Your task to perform on an android device: Go to calendar. Show me events next week Image 0: 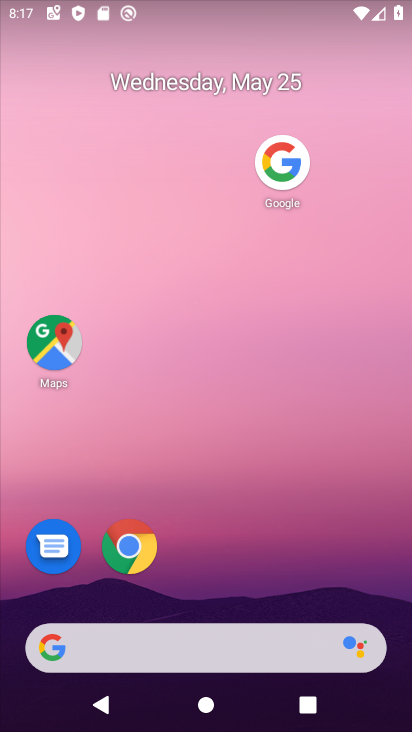
Step 0: press home button
Your task to perform on an android device: Go to calendar. Show me events next week Image 1: 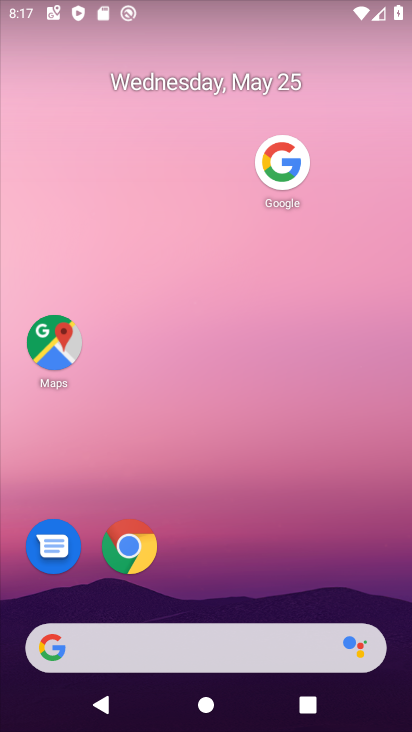
Step 1: drag from (208, 653) to (381, 203)
Your task to perform on an android device: Go to calendar. Show me events next week Image 2: 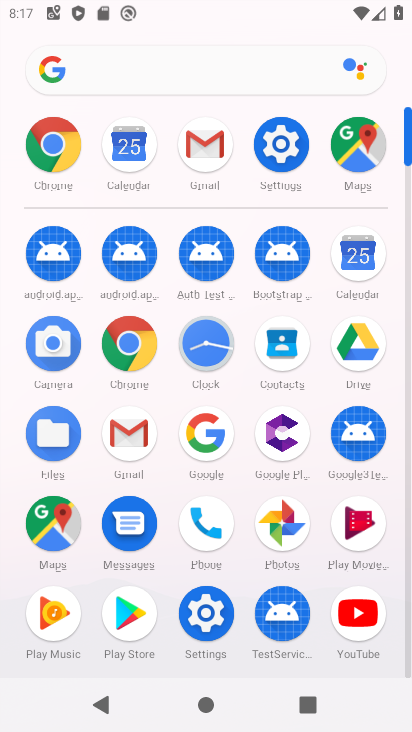
Step 2: click (362, 261)
Your task to perform on an android device: Go to calendar. Show me events next week Image 3: 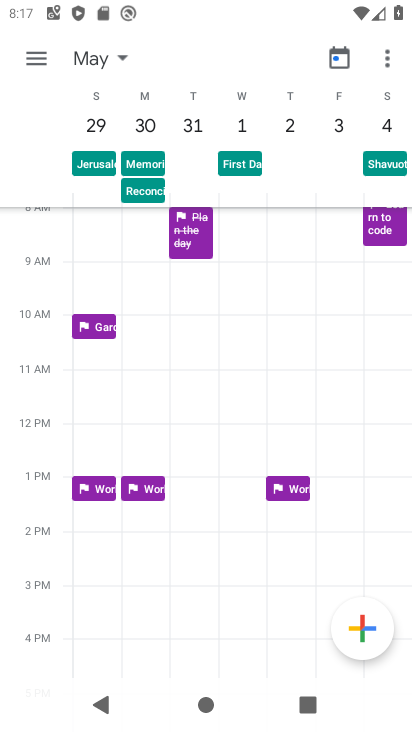
Step 3: click (38, 54)
Your task to perform on an android device: Go to calendar. Show me events next week Image 4: 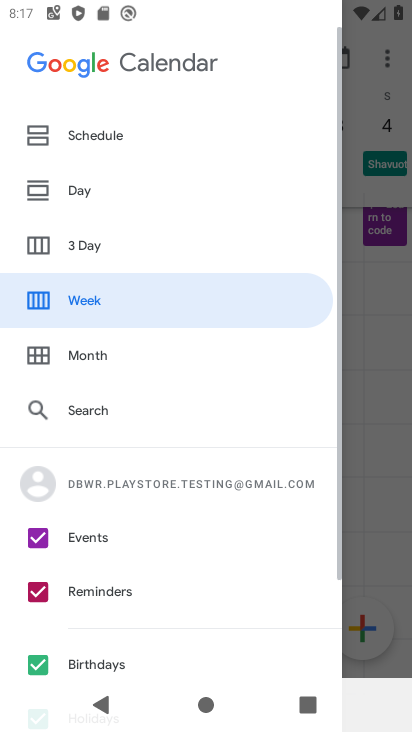
Step 4: click (107, 137)
Your task to perform on an android device: Go to calendar. Show me events next week Image 5: 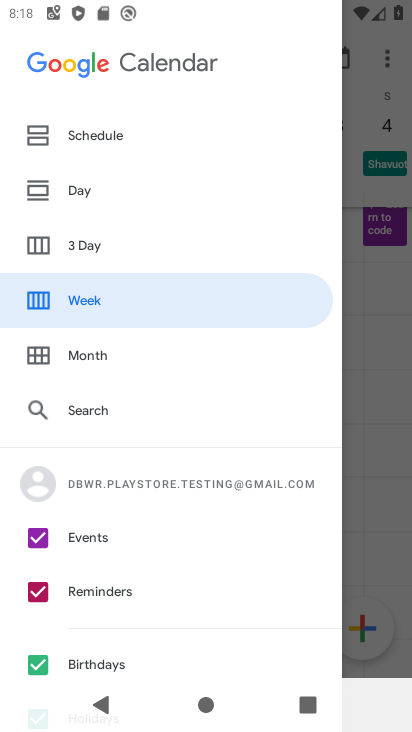
Step 5: click (83, 131)
Your task to perform on an android device: Go to calendar. Show me events next week Image 6: 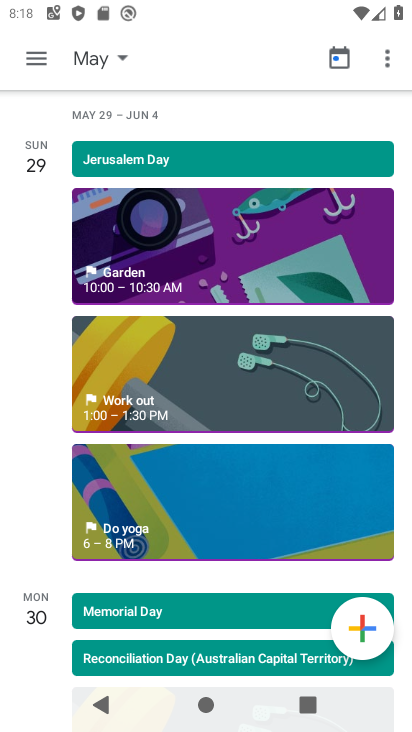
Step 6: click (255, 252)
Your task to perform on an android device: Go to calendar. Show me events next week Image 7: 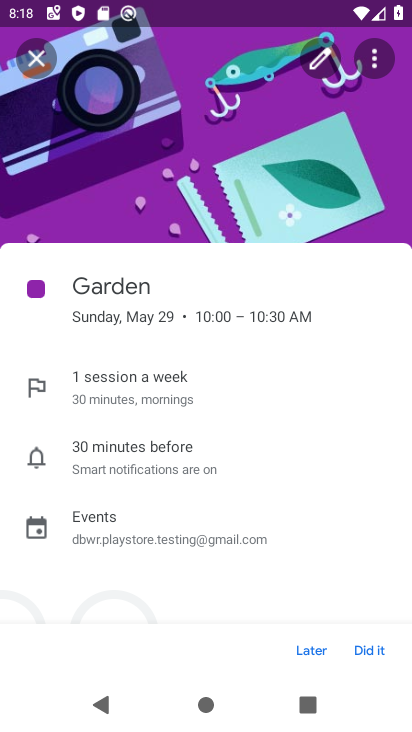
Step 7: task complete